Your task to perform on an android device: Open calendar and show me the second week of next month Image 0: 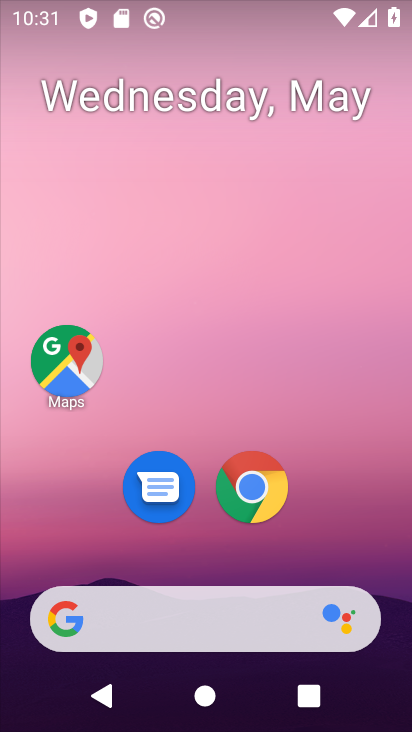
Step 0: drag from (246, 431) to (101, 233)
Your task to perform on an android device: Open calendar and show me the second week of next month Image 1: 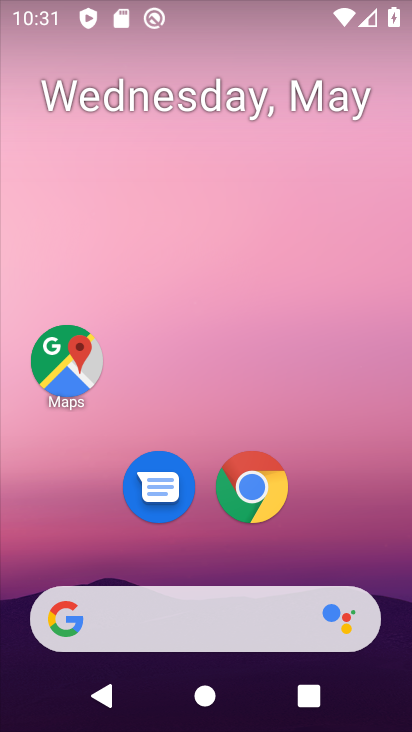
Step 1: drag from (186, 558) to (236, 117)
Your task to perform on an android device: Open calendar and show me the second week of next month Image 2: 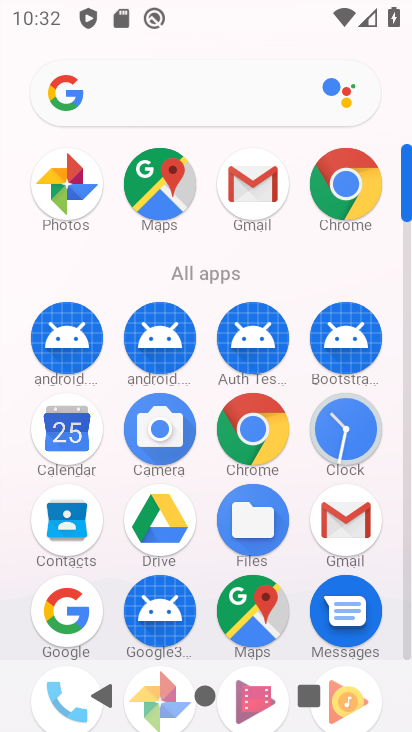
Step 2: click (69, 446)
Your task to perform on an android device: Open calendar and show me the second week of next month Image 3: 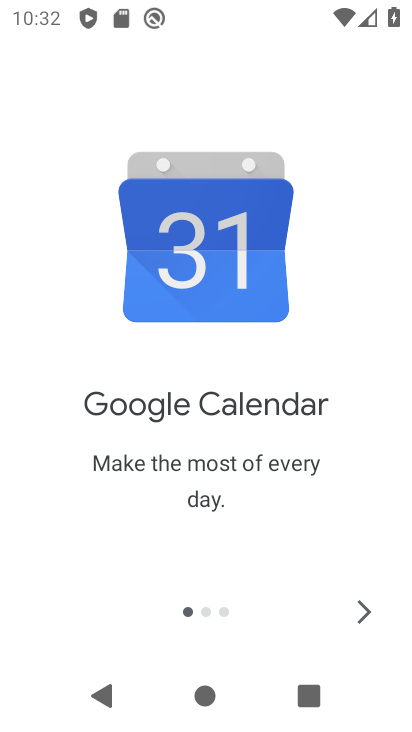
Step 3: click (358, 612)
Your task to perform on an android device: Open calendar and show me the second week of next month Image 4: 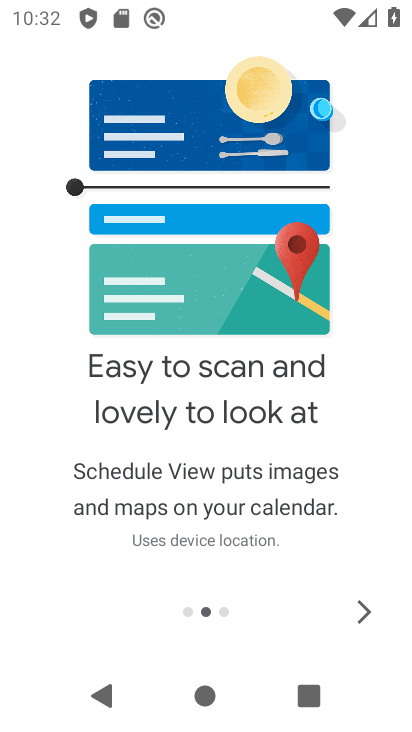
Step 4: click (358, 612)
Your task to perform on an android device: Open calendar and show me the second week of next month Image 5: 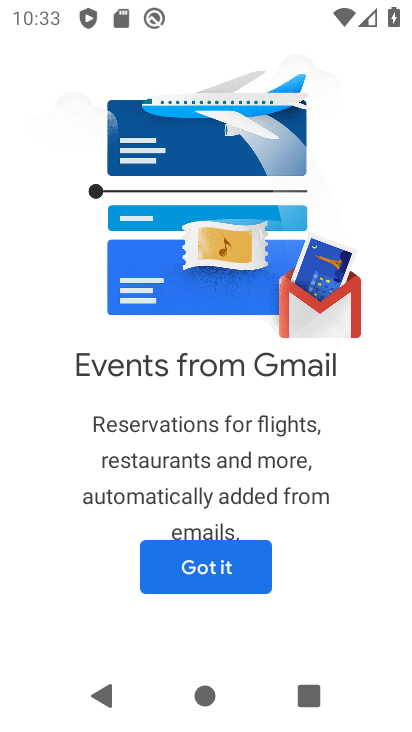
Step 5: press home button
Your task to perform on an android device: Open calendar and show me the second week of next month Image 6: 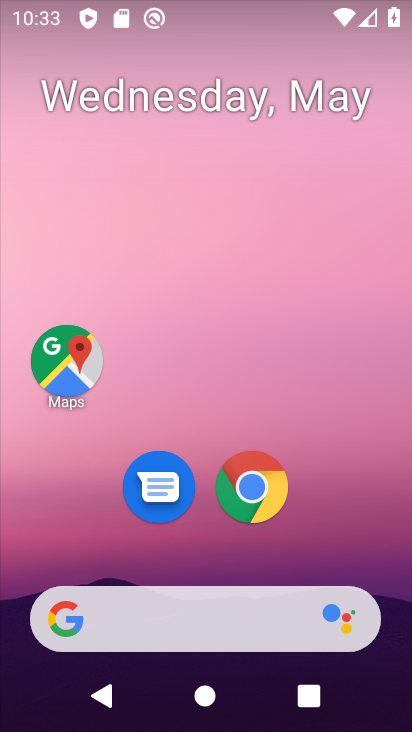
Step 6: drag from (171, 493) to (380, 73)
Your task to perform on an android device: Open calendar and show me the second week of next month Image 7: 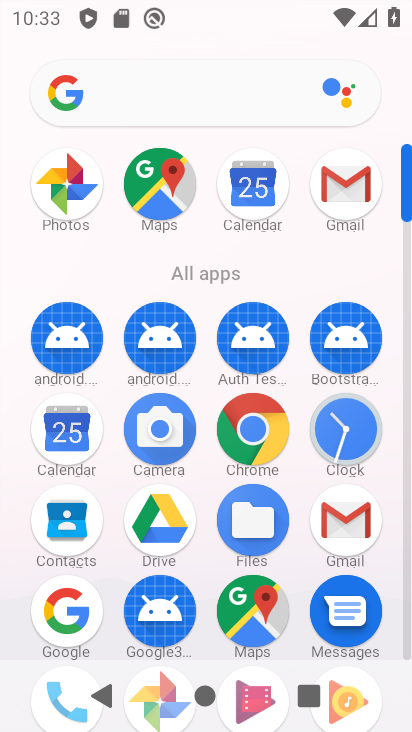
Step 7: click (48, 434)
Your task to perform on an android device: Open calendar and show me the second week of next month Image 8: 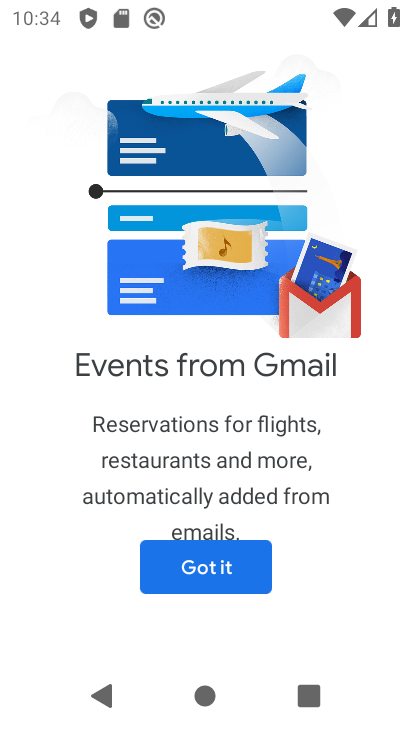
Step 8: click (222, 569)
Your task to perform on an android device: Open calendar and show me the second week of next month Image 9: 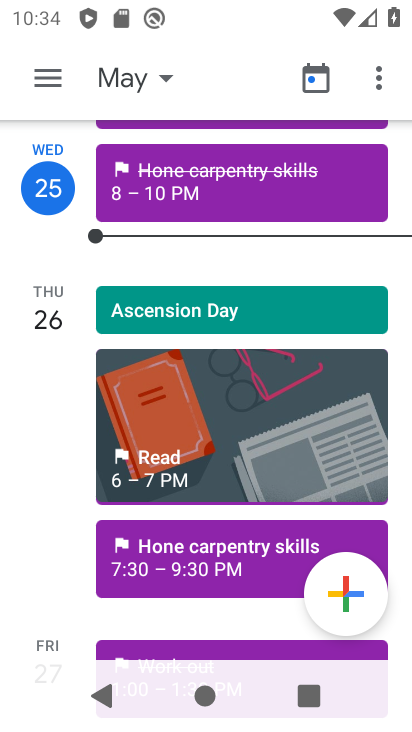
Step 9: click (148, 81)
Your task to perform on an android device: Open calendar and show me the second week of next month Image 10: 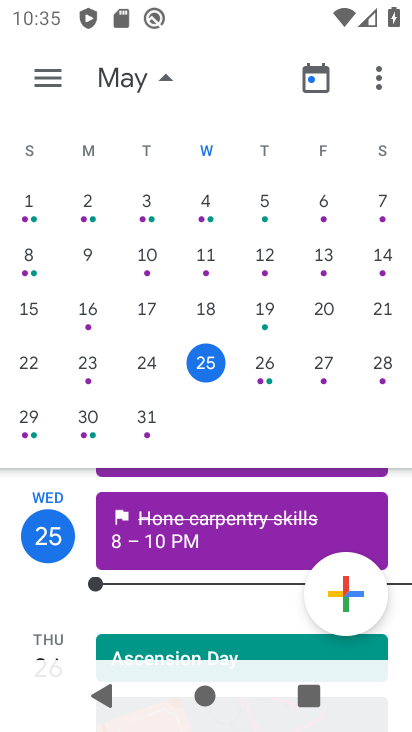
Step 10: drag from (399, 291) to (0, 228)
Your task to perform on an android device: Open calendar and show me the second week of next month Image 11: 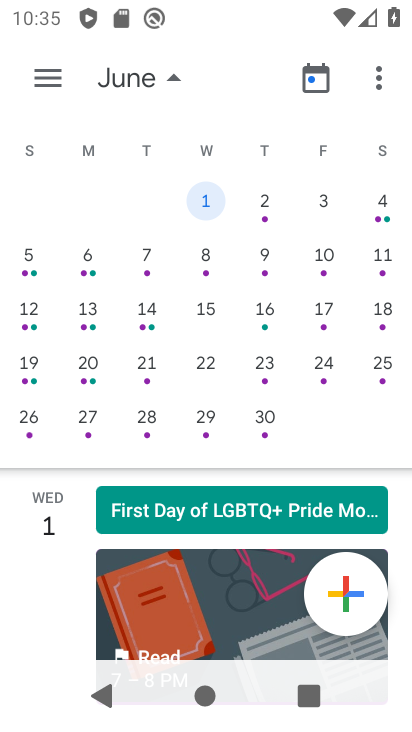
Step 11: click (212, 263)
Your task to perform on an android device: Open calendar and show me the second week of next month Image 12: 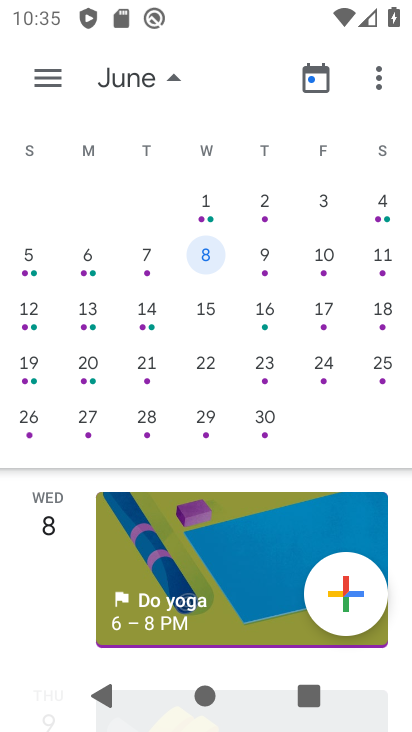
Step 12: click (256, 262)
Your task to perform on an android device: Open calendar and show me the second week of next month Image 13: 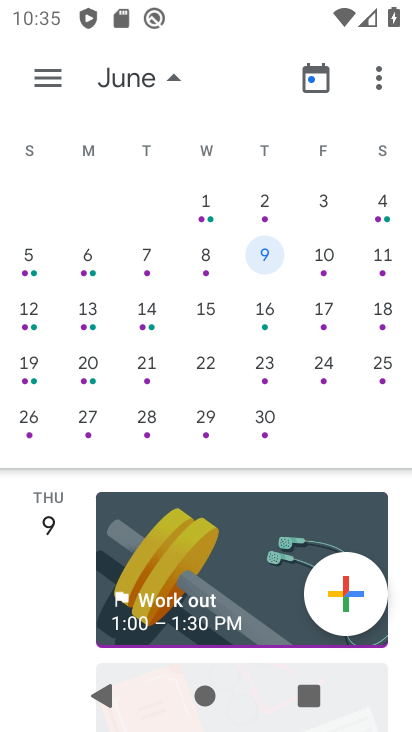
Step 13: click (50, 78)
Your task to perform on an android device: Open calendar and show me the second week of next month Image 14: 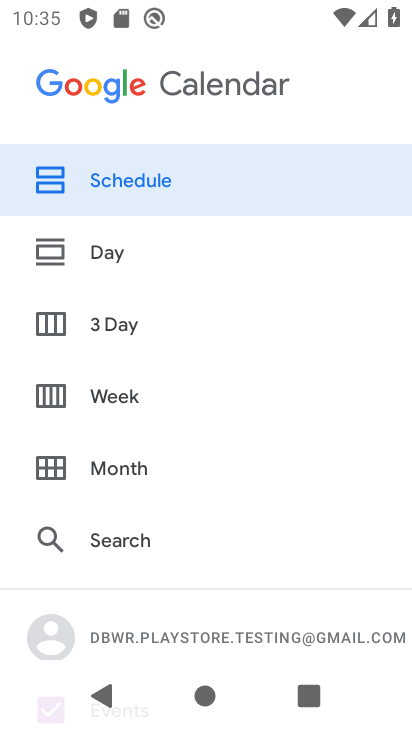
Step 14: click (131, 393)
Your task to perform on an android device: Open calendar and show me the second week of next month Image 15: 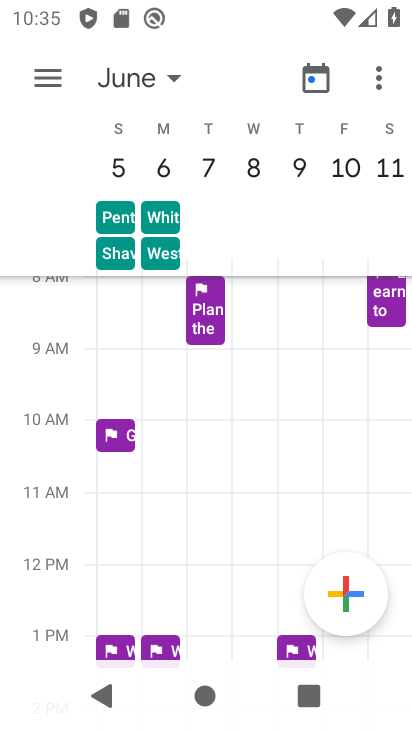
Step 15: task complete